Your task to perform on an android device: install app "PUBG MOBILE" Image 0: 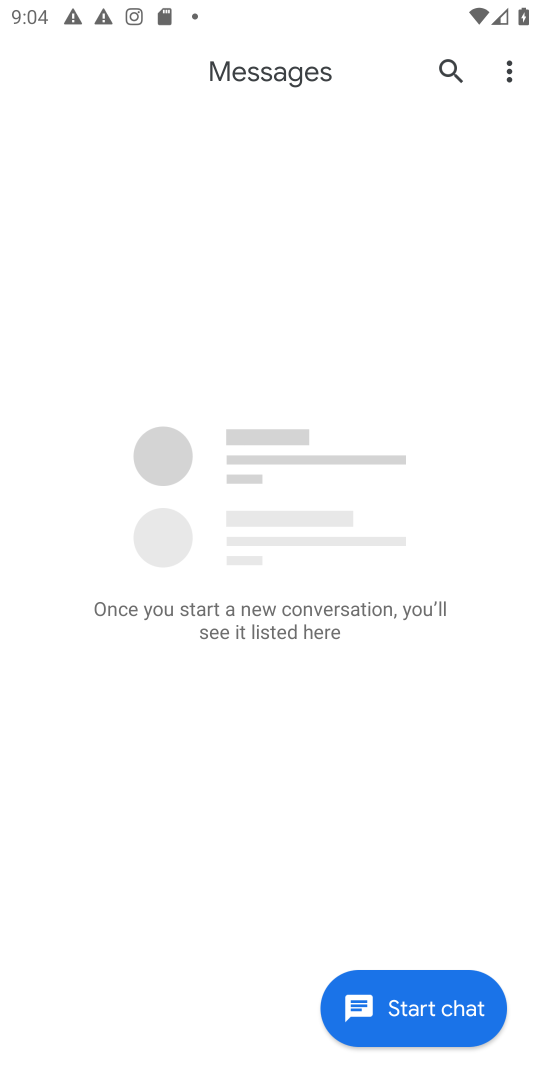
Step 0: press home button
Your task to perform on an android device: install app "PUBG MOBILE" Image 1: 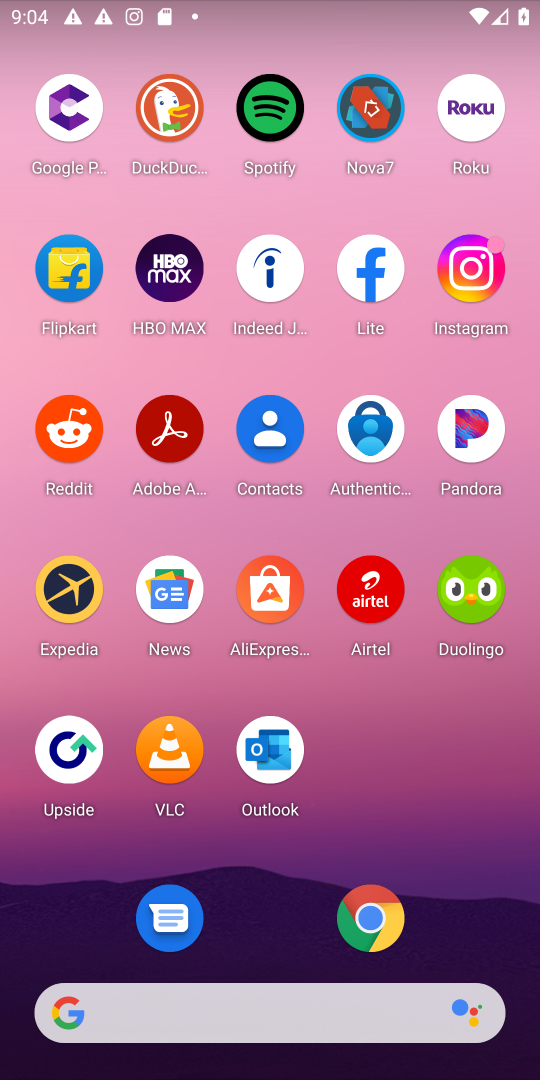
Step 1: press home button
Your task to perform on an android device: install app "PUBG MOBILE" Image 2: 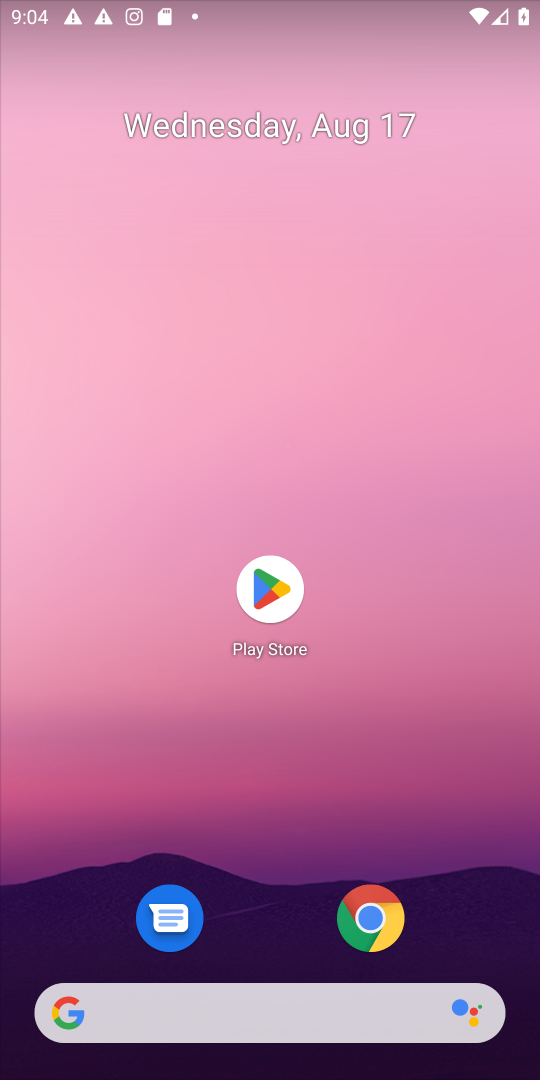
Step 2: click (265, 570)
Your task to perform on an android device: install app "PUBG MOBILE" Image 3: 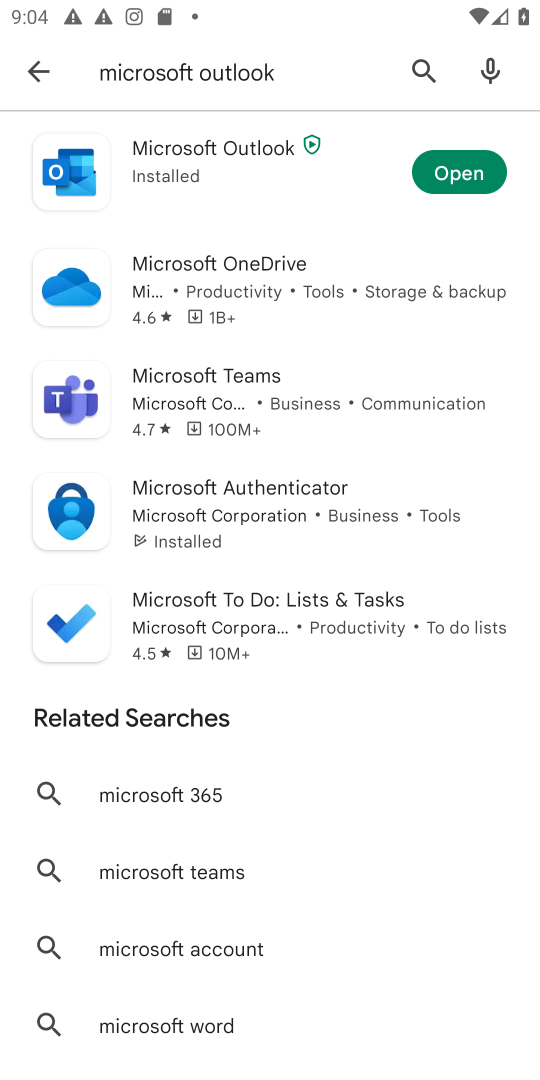
Step 3: click (416, 71)
Your task to perform on an android device: install app "PUBG MOBILE" Image 4: 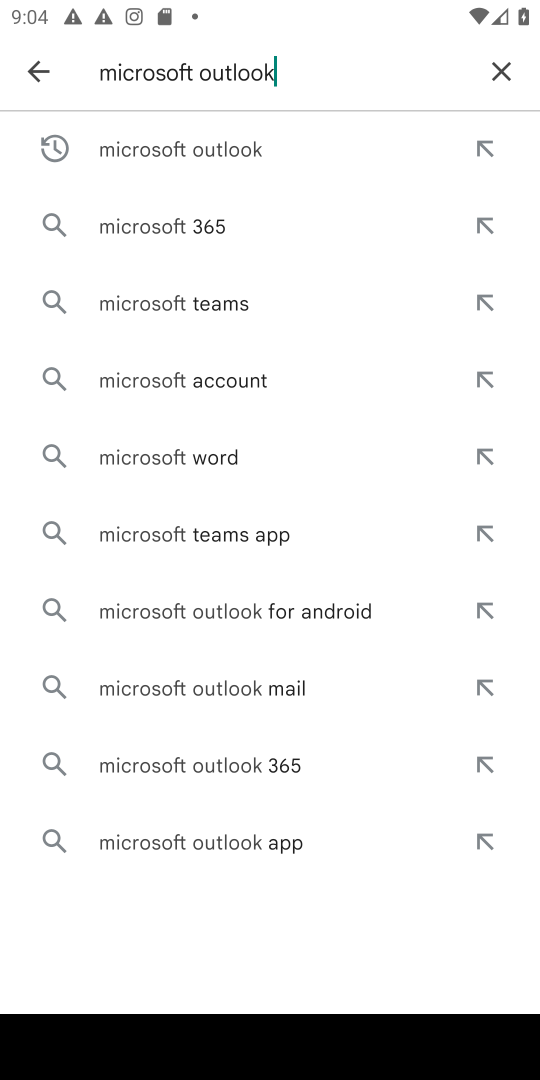
Step 4: click (487, 69)
Your task to perform on an android device: install app "PUBG MOBILE" Image 5: 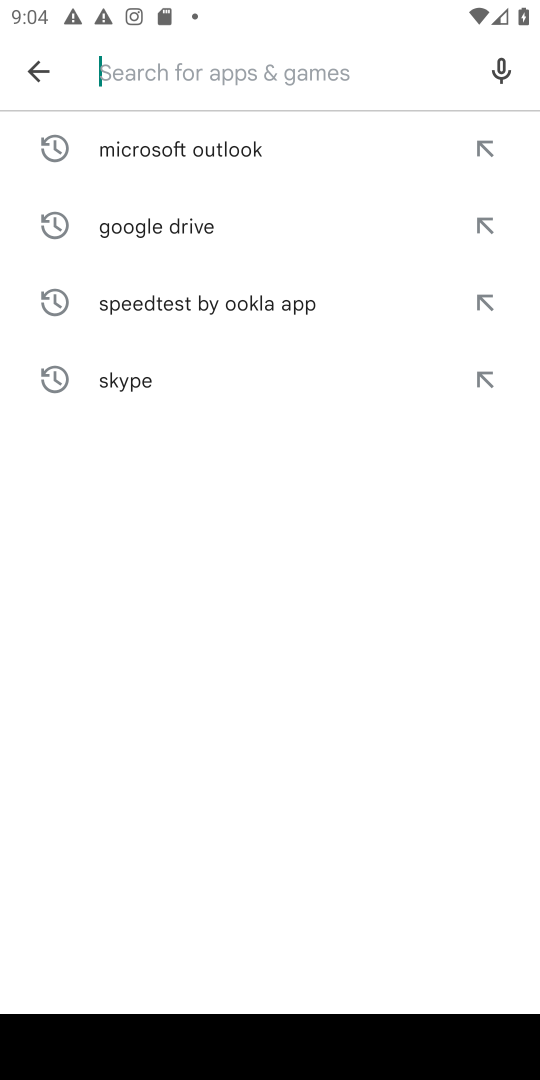
Step 5: type "PUBG MOBILE"
Your task to perform on an android device: install app "PUBG MOBILE" Image 6: 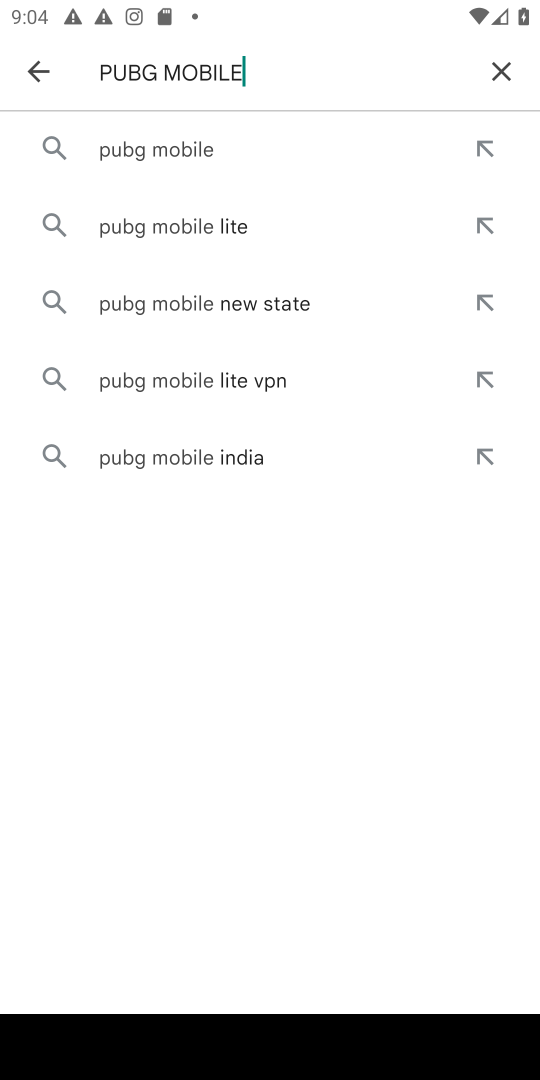
Step 6: click (168, 156)
Your task to perform on an android device: install app "PUBG MOBILE" Image 7: 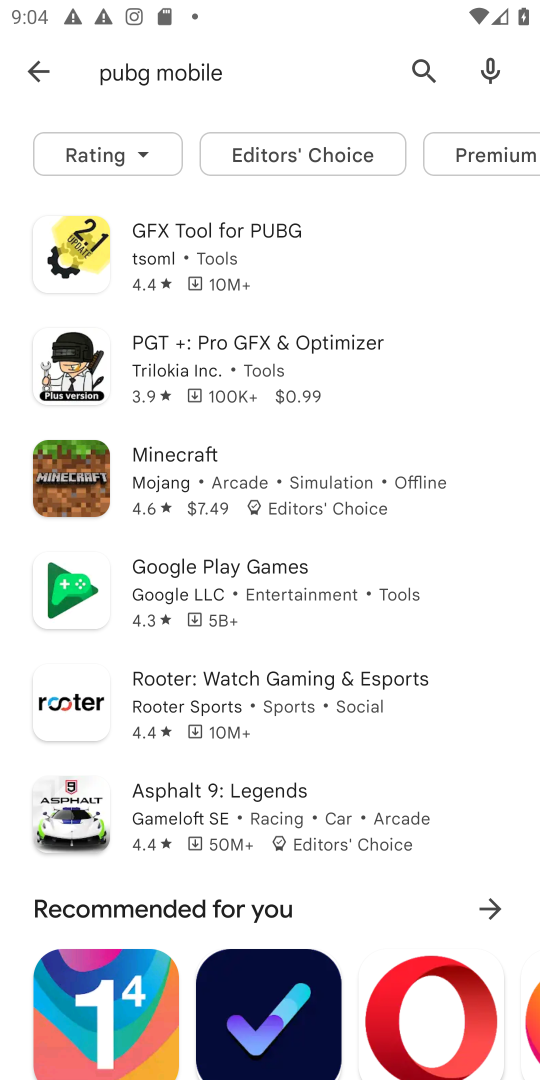
Step 7: task complete